Your task to perform on an android device: change the clock style Image 0: 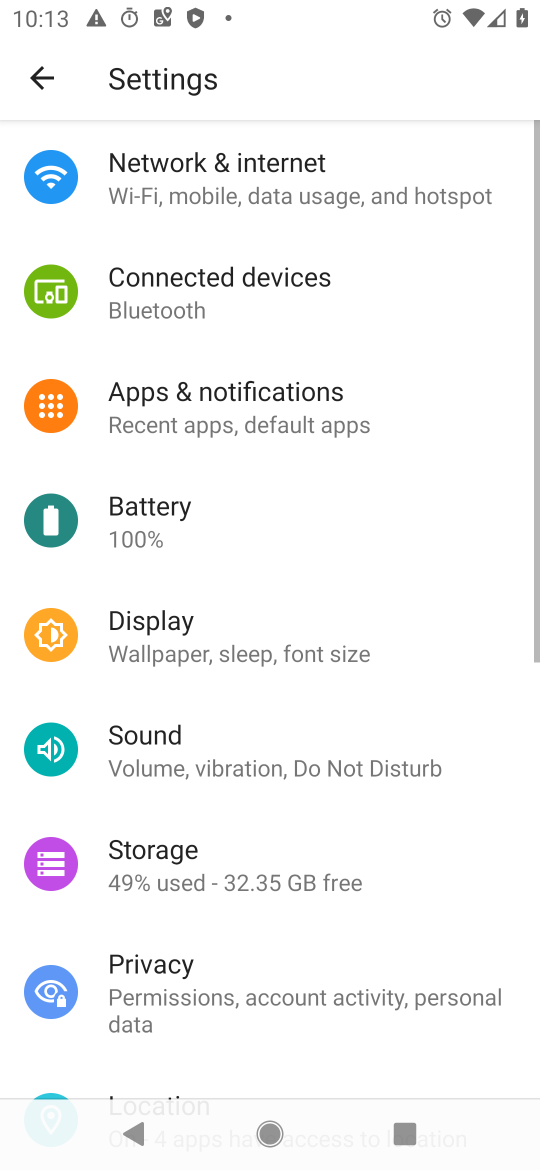
Step 0: press home button
Your task to perform on an android device: change the clock style Image 1: 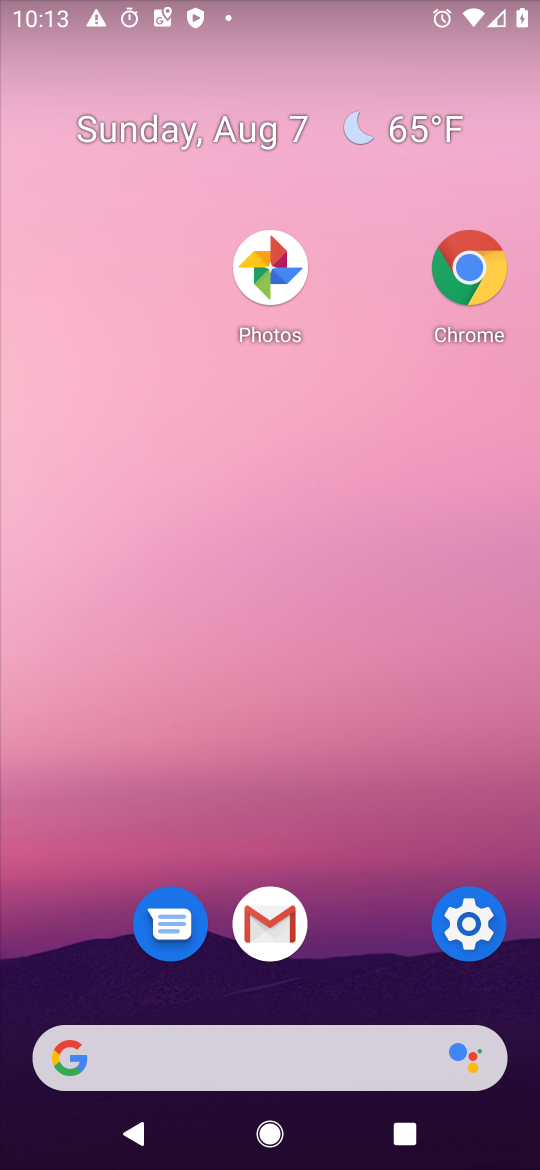
Step 1: drag from (359, 1086) to (437, 157)
Your task to perform on an android device: change the clock style Image 2: 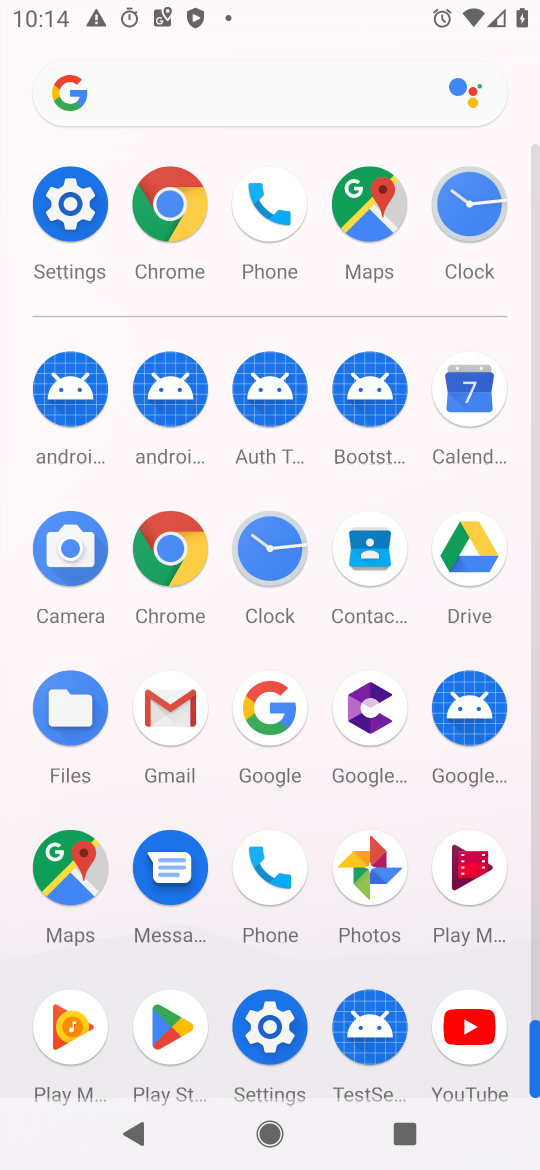
Step 2: click (261, 543)
Your task to perform on an android device: change the clock style Image 3: 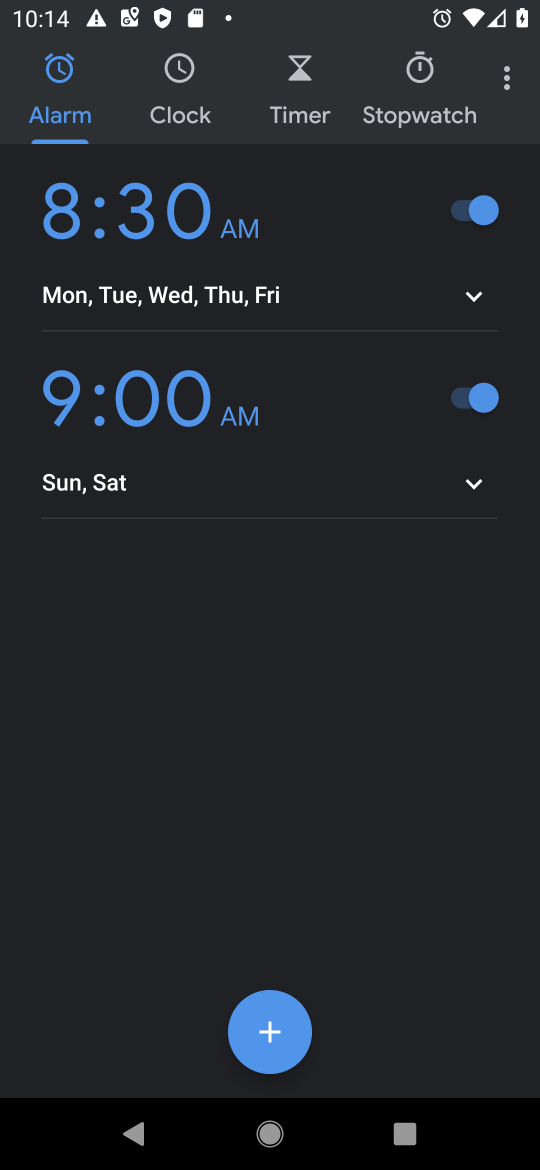
Step 3: click (497, 85)
Your task to perform on an android device: change the clock style Image 4: 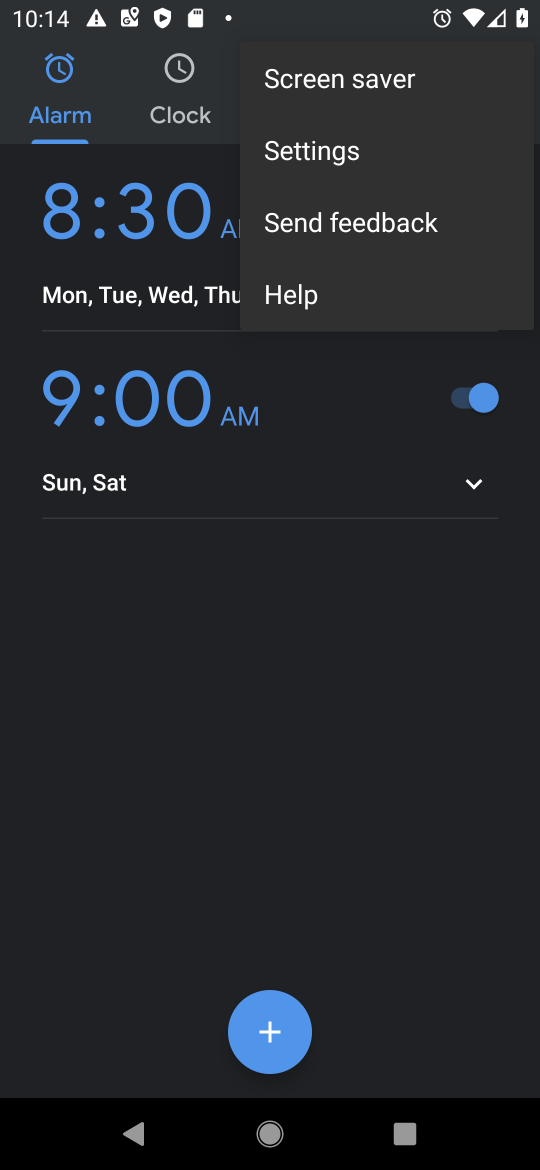
Step 4: click (306, 149)
Your task to perform on an android device: change the clock style Image 5: 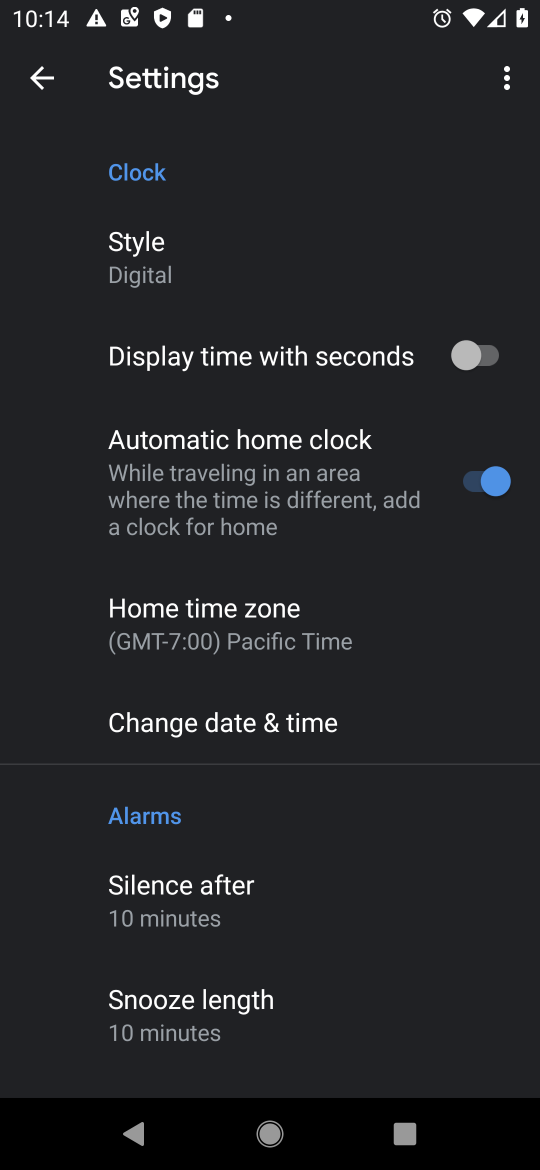
Step 5: click (161, 243)
Your task to perform on an android device: change the clock style Image 6: 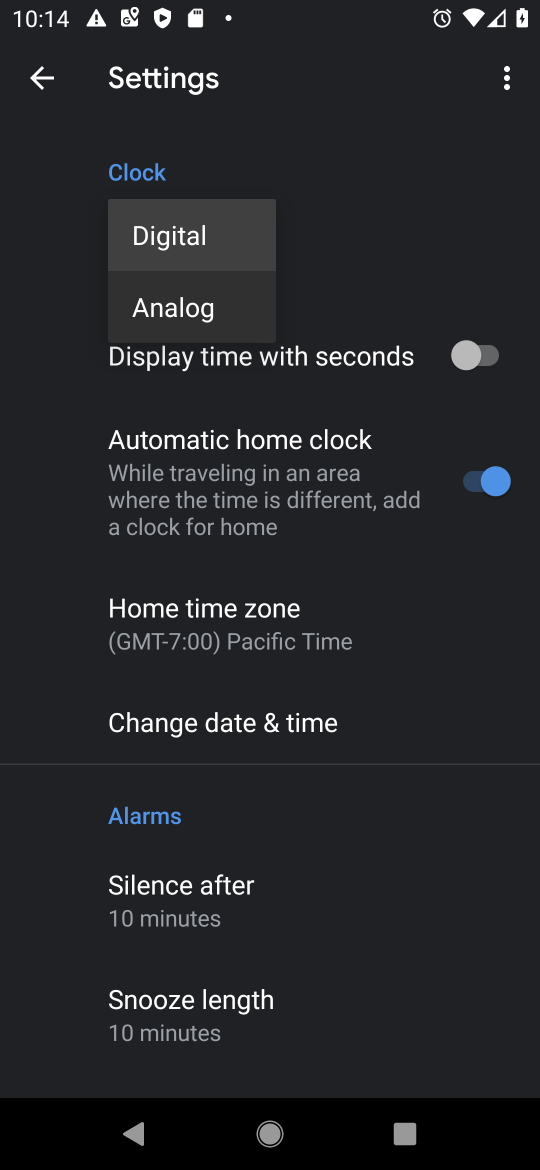
Step 6: click (177, 240)
Your task to perform on an android device: change the clock style Image 7: 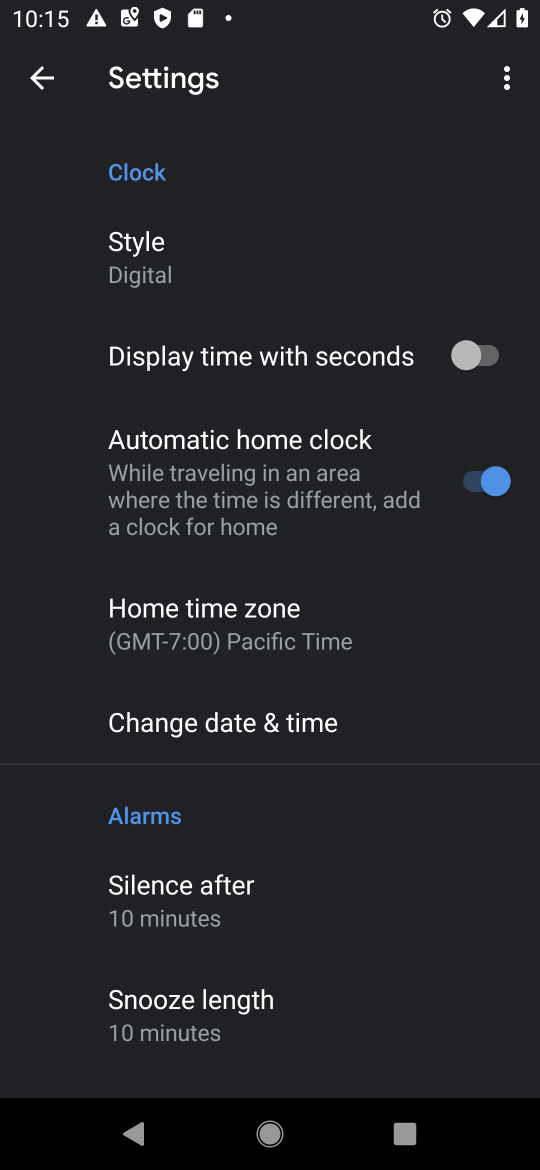
Step 7: task complete